Your task to perform on an android device: Search for a 3D printer on aliexpress. Image 0: 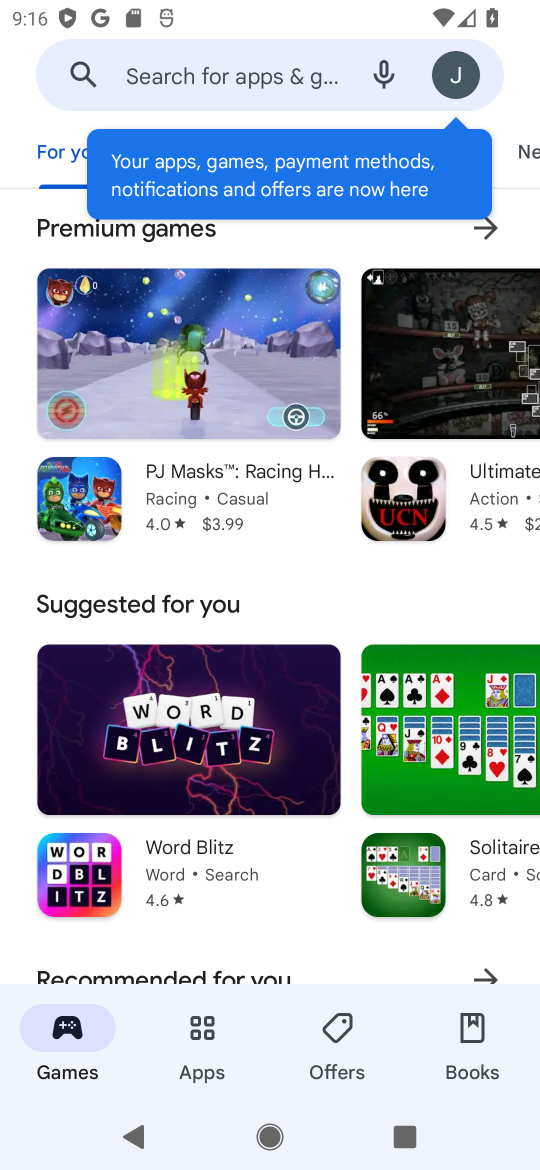
Step 0: press home button
Your task to perform on an android device: Search for a 3D printer on aliexpress. Image 1: 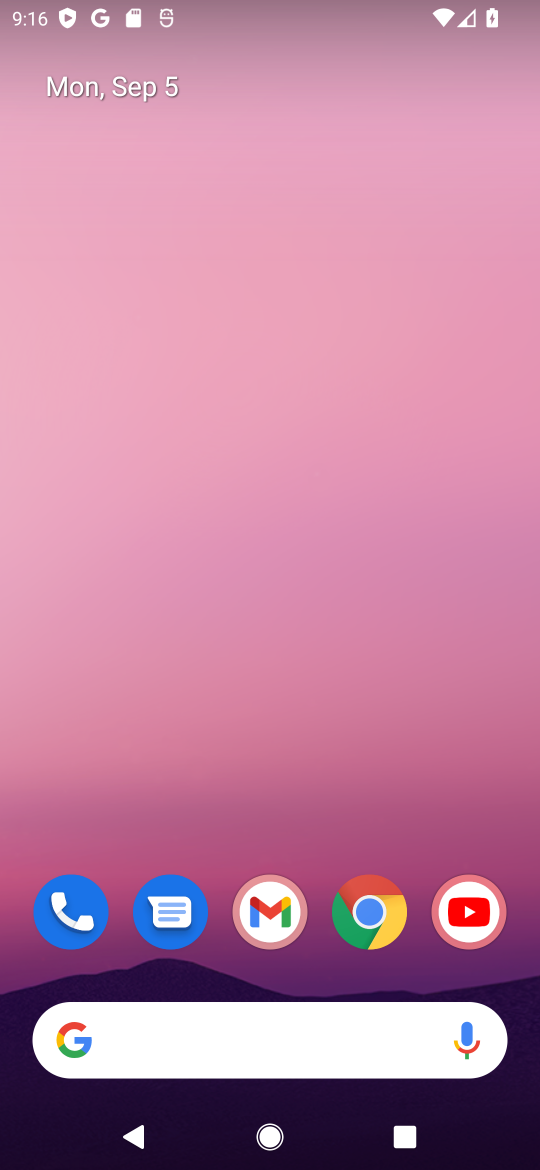
Step 1: click (376, 919)
Your task to perform on an android device: Search for a 3D printer on aliexpress. Image 2: 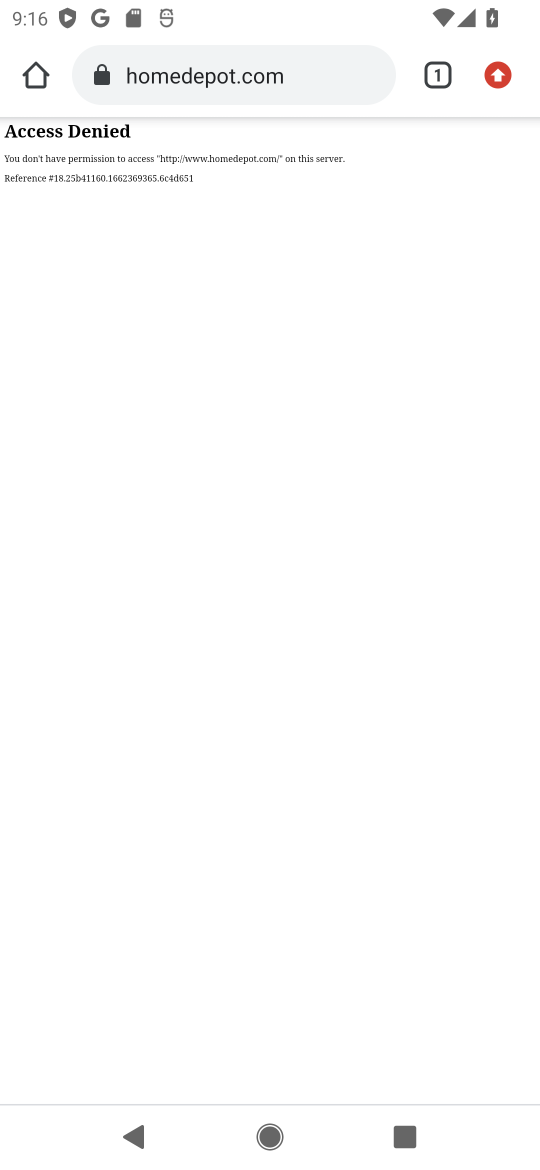
Step 2: click (302, 84)
Your task to perform on an android device: Search for a 3D printer on aliexpress. Image 3: 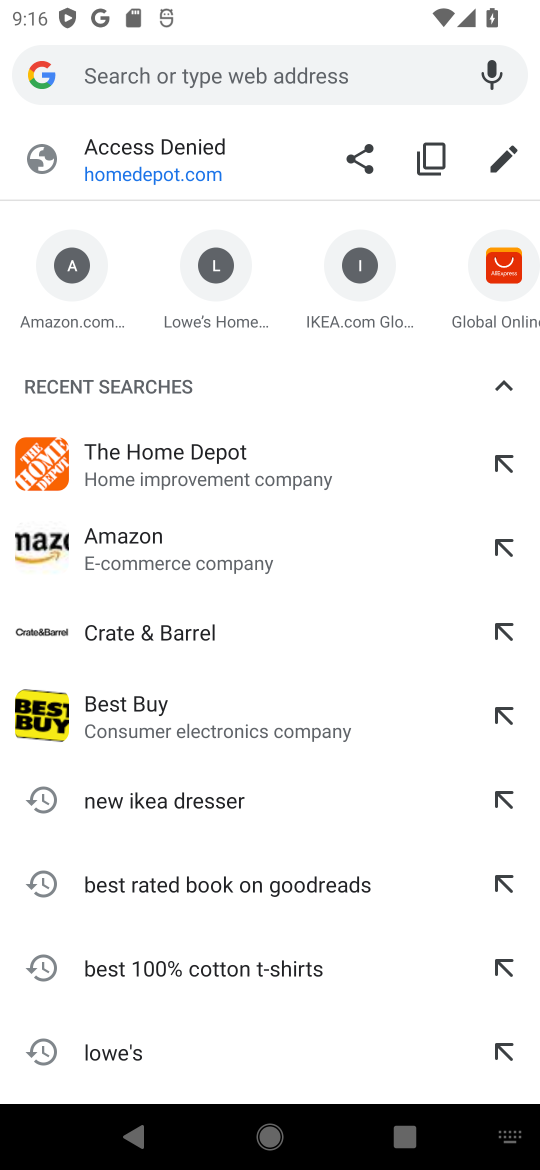
Step 3: type "aliexpress"
Your task to perform on an android device: Search for a 3D printer on aliexpress. Image 4: 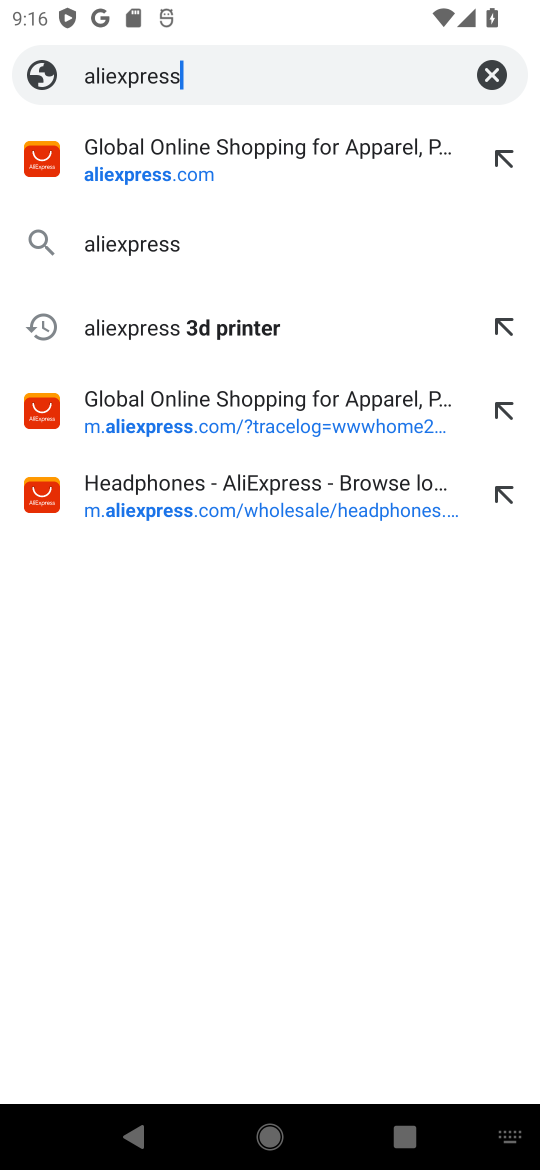
Step 4: press enter
Your task to perform on an android device: Search for a 3D printer on aliexpress. Image 5: 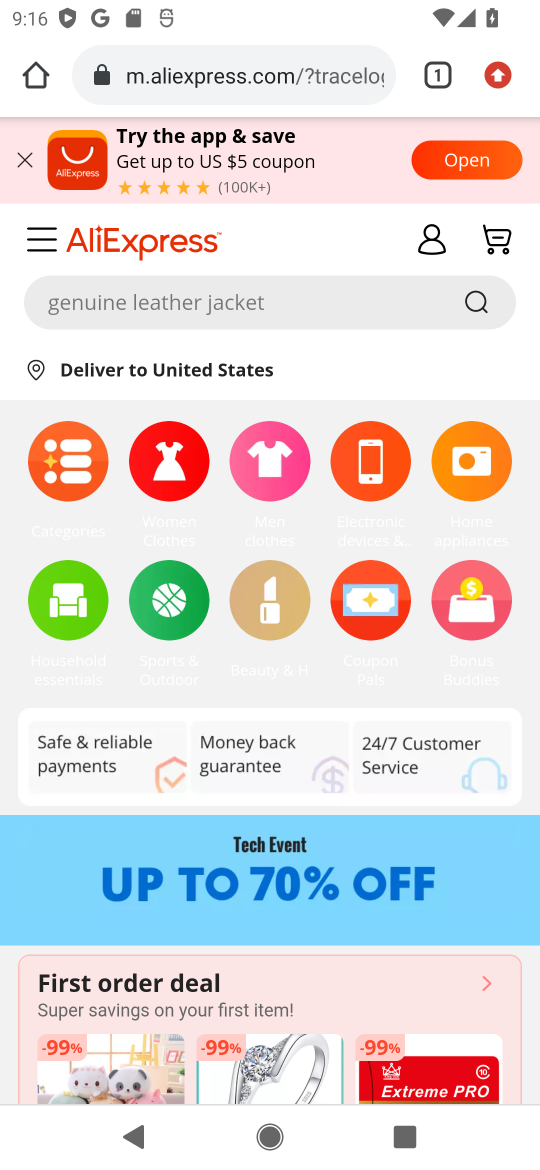
Step 5: click (232, 304)
Your task to perform on an android device: Search for a 3D printer on aliexpress. Image 6: 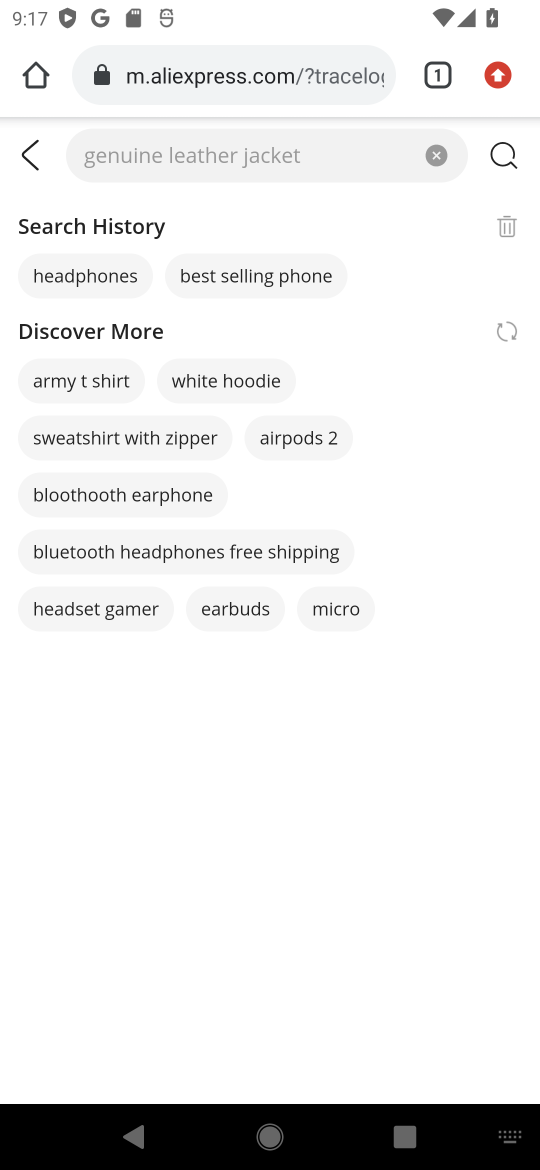
Step 6: type "3D printer"
Your task to perform on an android device: Search for a 3D printer on aliexpress. Image 7: 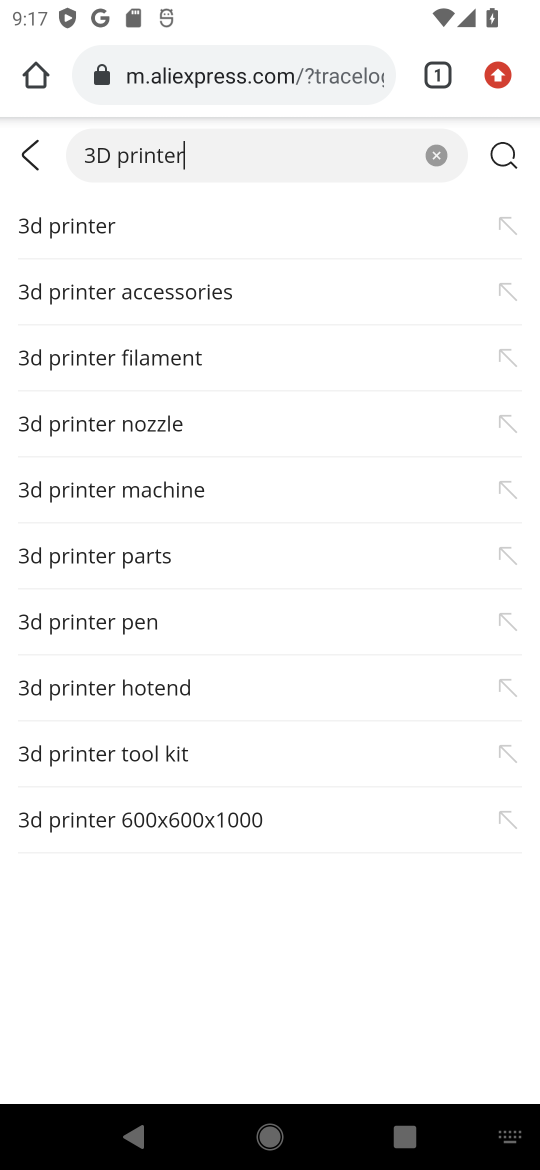
Step 7: press enter
Your task to perform on an android device: Search for a 3D printer on aliexpress. Image 8: 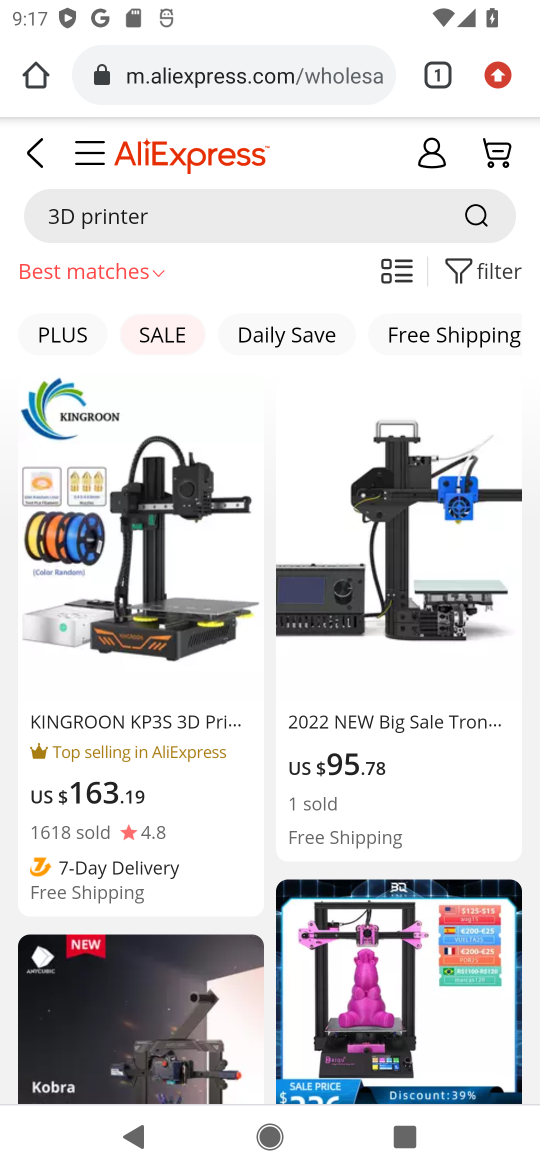
Step 8: task complete